Your task to perform on an android device: Do I have any events this weekend? Image 0: 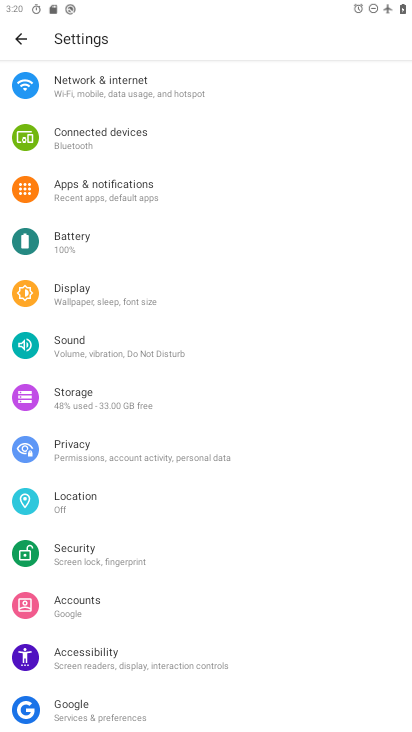
Step 0: press home button
Your task to perform on an android device: Do I have any events this weekend? Image 1: 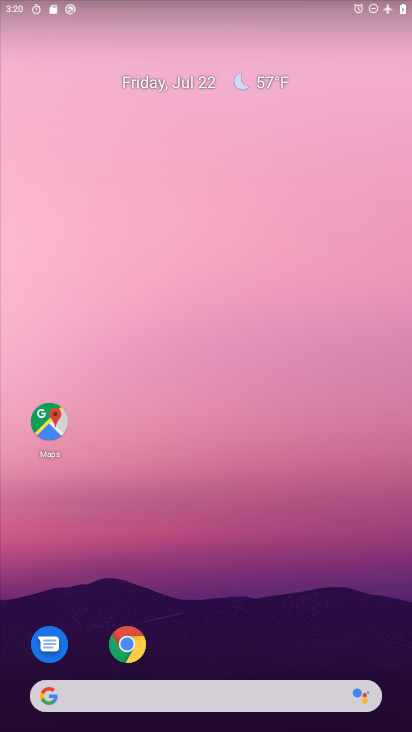
Step 1: drag from (223, 654) to (219, 234)
Your task to perform on an android device: Do I have any events this weekend? Image 2: 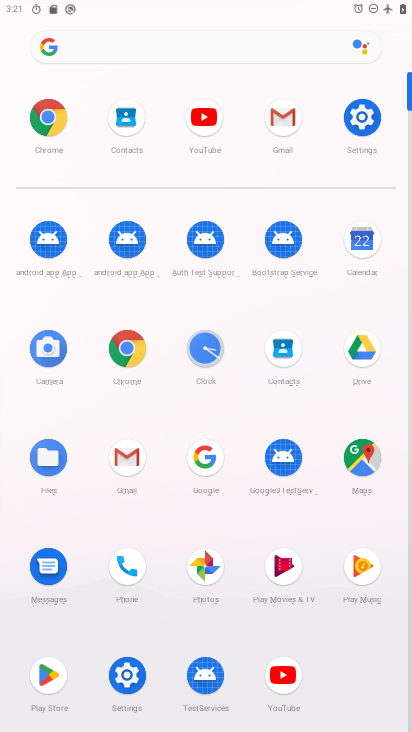
Step 2: click (360, 255)
Your task to perform on an android device: Do I have any events this weekend? Image 3: 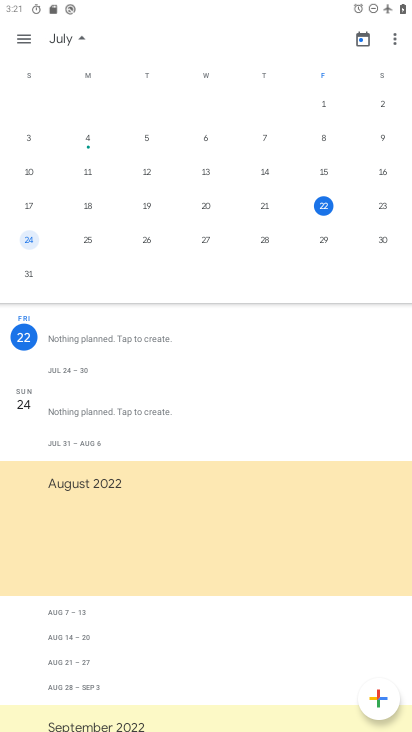
Step 3: click (370, 208)
Your task to perform on an android device: Do I have any events this weekend? Image 4: 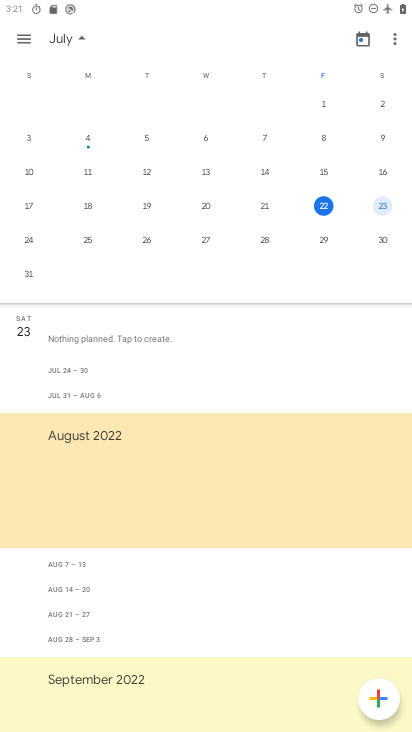
Step 4: task complete